Your task to perform on an android device: open the mobile data screen to see how much data has been used Image 0: 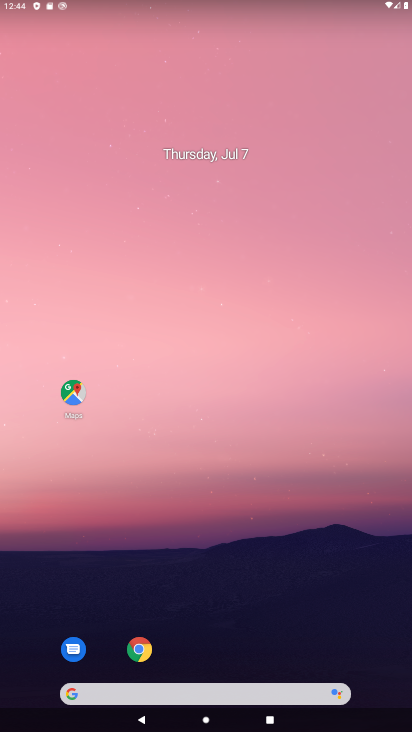
Step 0: drag from (229, 674) to (142, 111)
Your task to perform on an android device: open the mobile data screen to see how much data has been used Image 1: 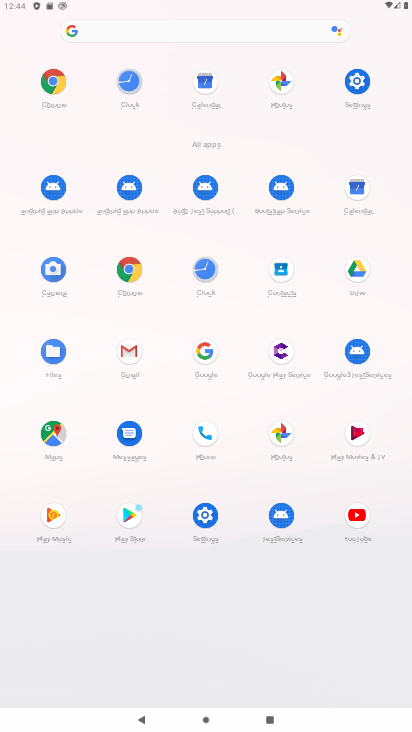
Step 1: click (203, 529)
Your task to perform on an android device: open the mobile data screen to see how much data has been used Image 2: 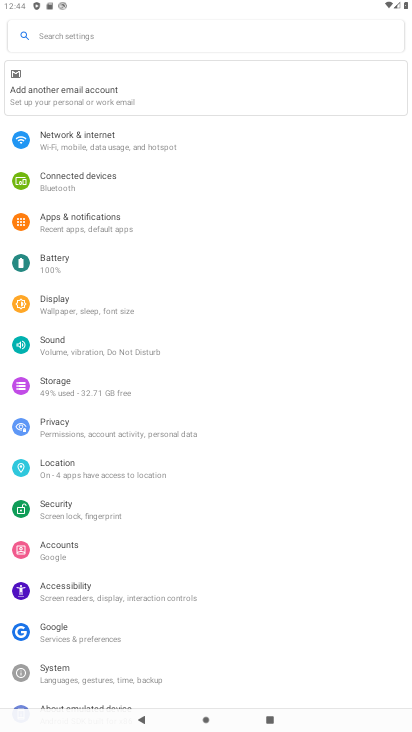
Step 2: click (86, 138)
Your task to perform on an android device: open the mobile data screen to see how much data has been used Image 3: 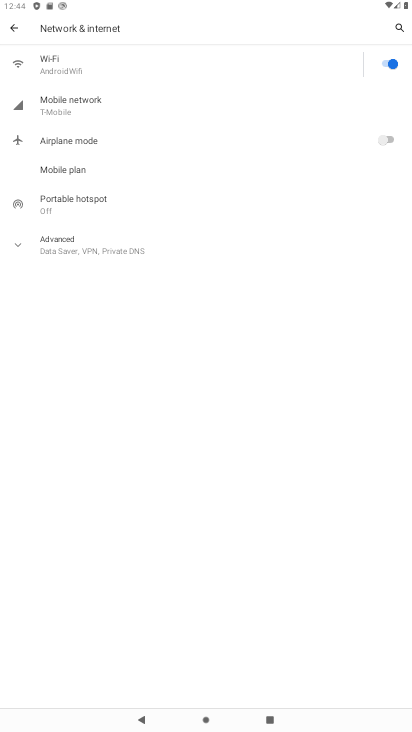
Step 3: click (71, 103)
Your task to perform on an android device: open the mobile data screen to see how much data has been used Image 4: 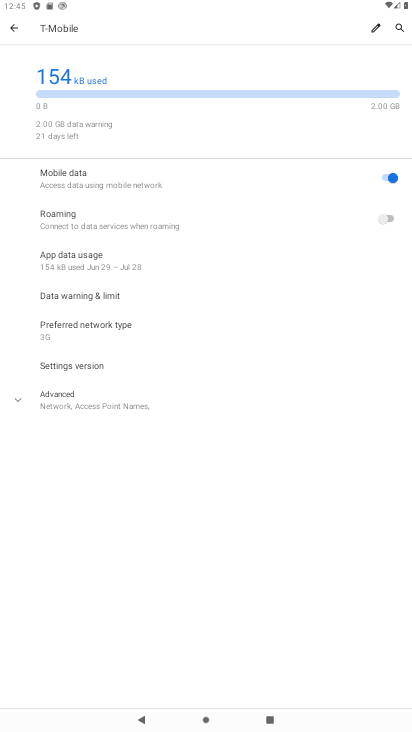
Step 4: task complete